Your task to perform on an android device: turn on data saver in the chrome app Image 0: 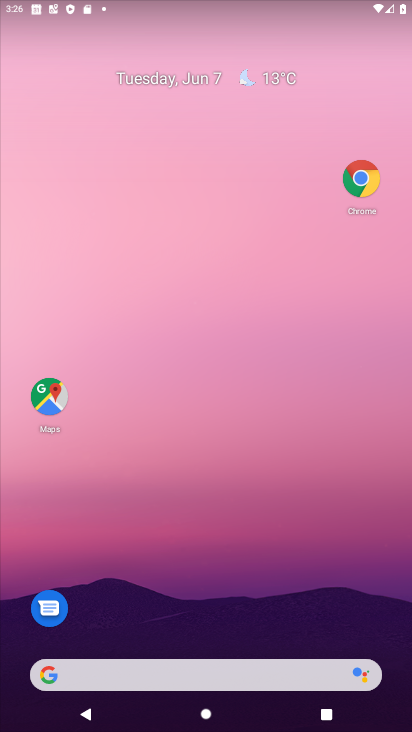
Step 0: click (362, 193)
Your task to perform on an android device: turn on data saver in the chrome app Image 1: 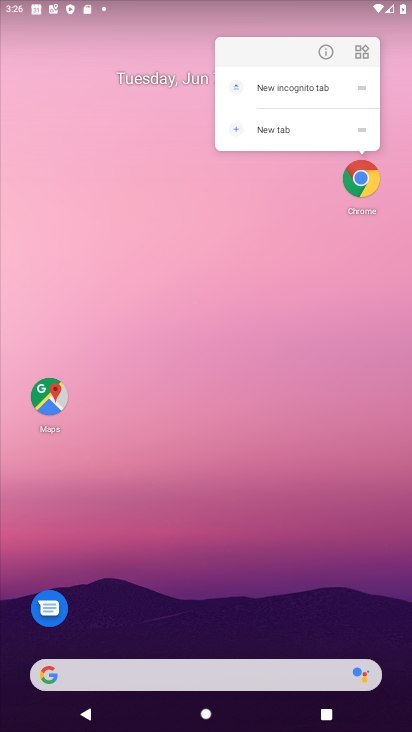
Step 1: click (365, 185)
Your task to perform on an android device: turn on data saver in the chrome app Image 2: 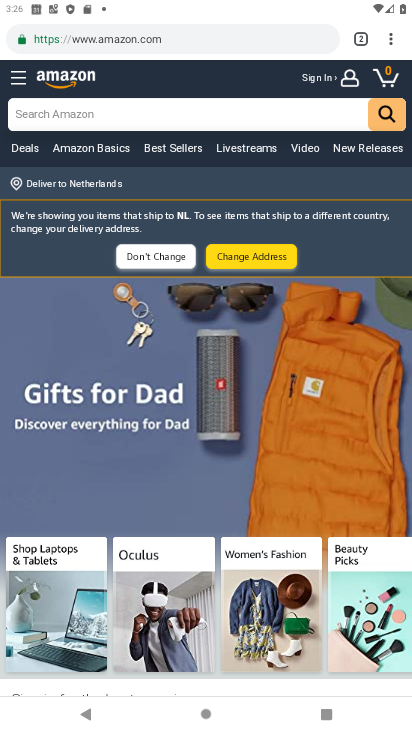
Step 2: drag from (394, 50) to (295, 507)
Your task to perform on an android device: turn on data saver in the chrome app Image 3: 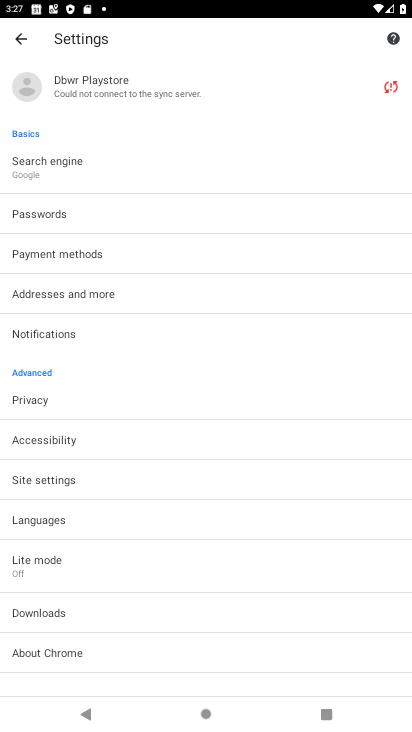
Step 3: click (86, 576)
Your task to perform on an android device: turn on data saver in the chrome app Image 4: 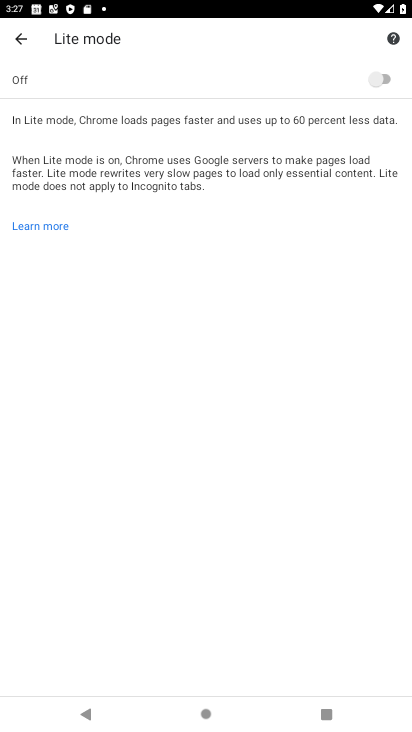
Step 4: click (394, 83)
Your task to perform on an android device: turn on data saver in the chrome app Image 5: 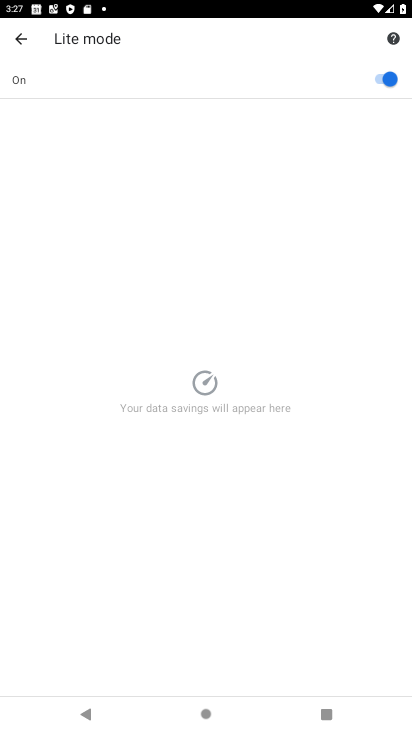
Step 5: task complete